Your task to perform on an android device: Open Google Chrome and click the shortcut for Amazon.com Image 0: 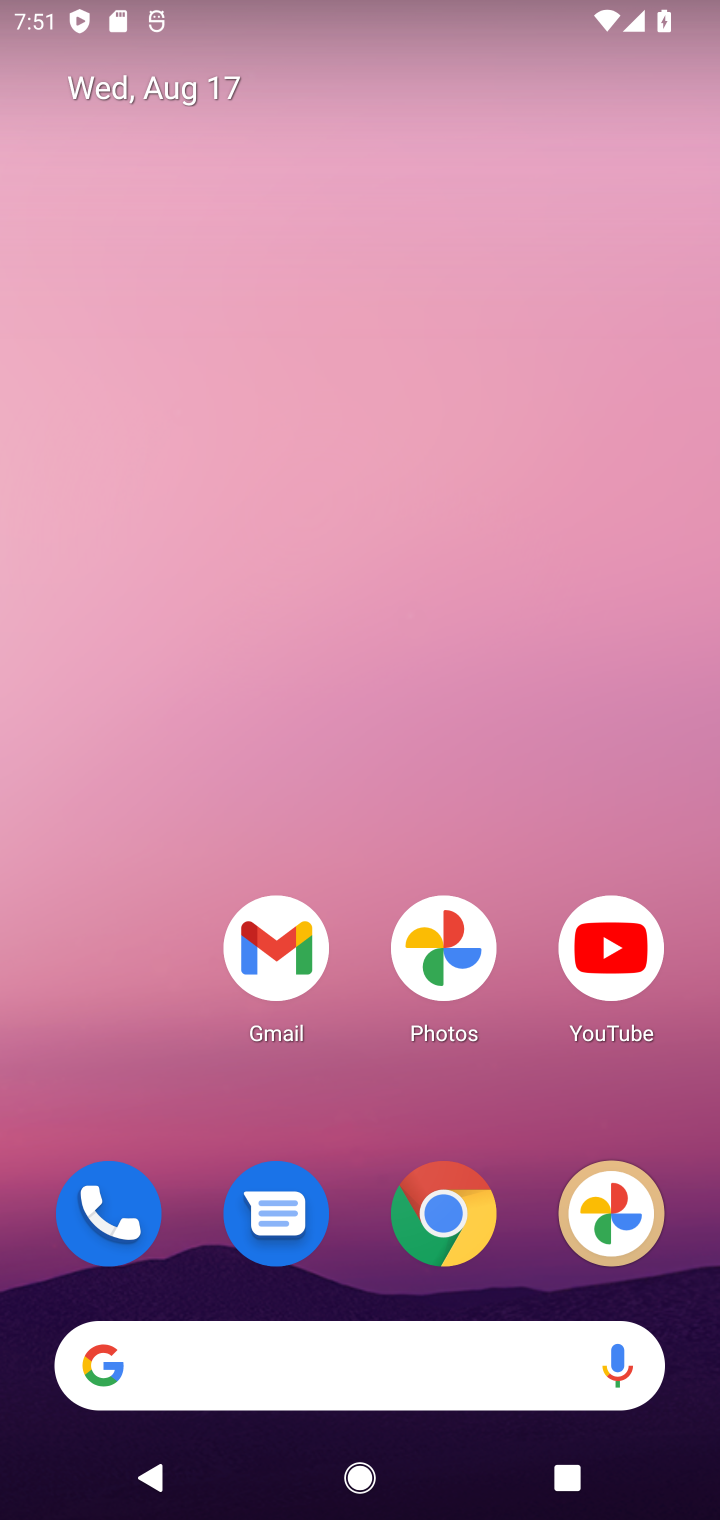
Step 0: click (462, 1213)
Your task to perform on an android device: Open Google Chrome and click the shortcut for Amazon.com Image 1: 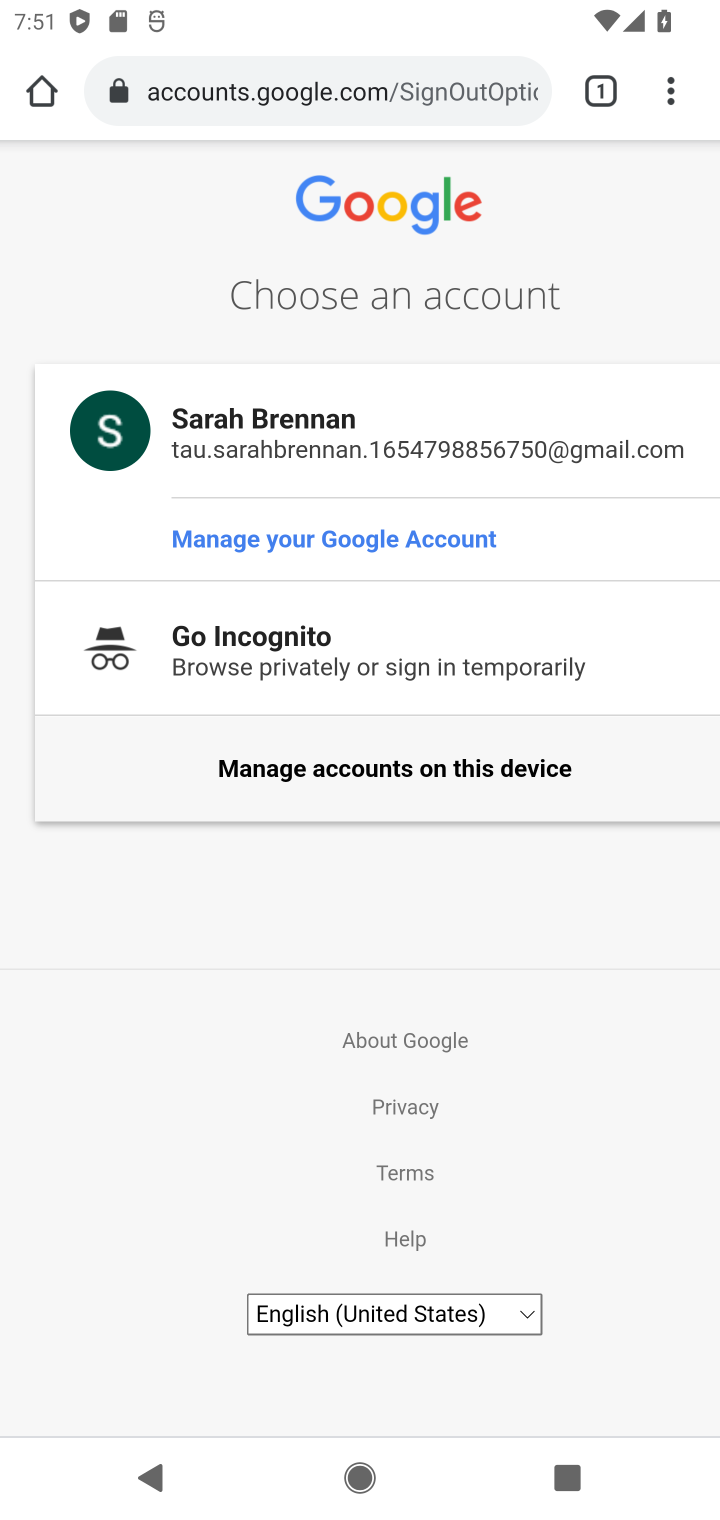
Step 1: click (595, 85)
Your task to perform on an android device: Open Google Chrome and click the shortcut for Amazon.com Image 2: 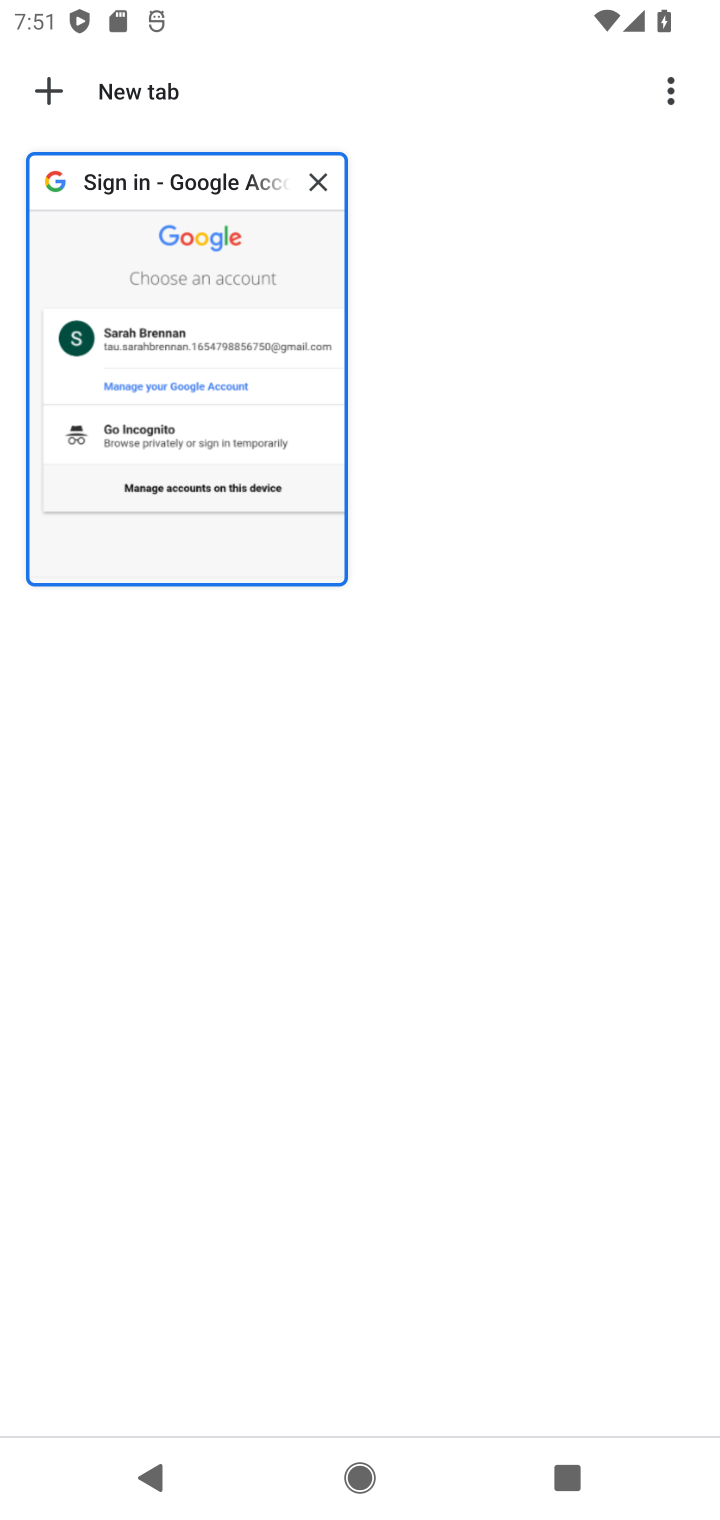
Step 2: click (100, 95)
Your task to perform on an android device: Open Google Chrome and click the shortcut for Amazon.com Image 3: 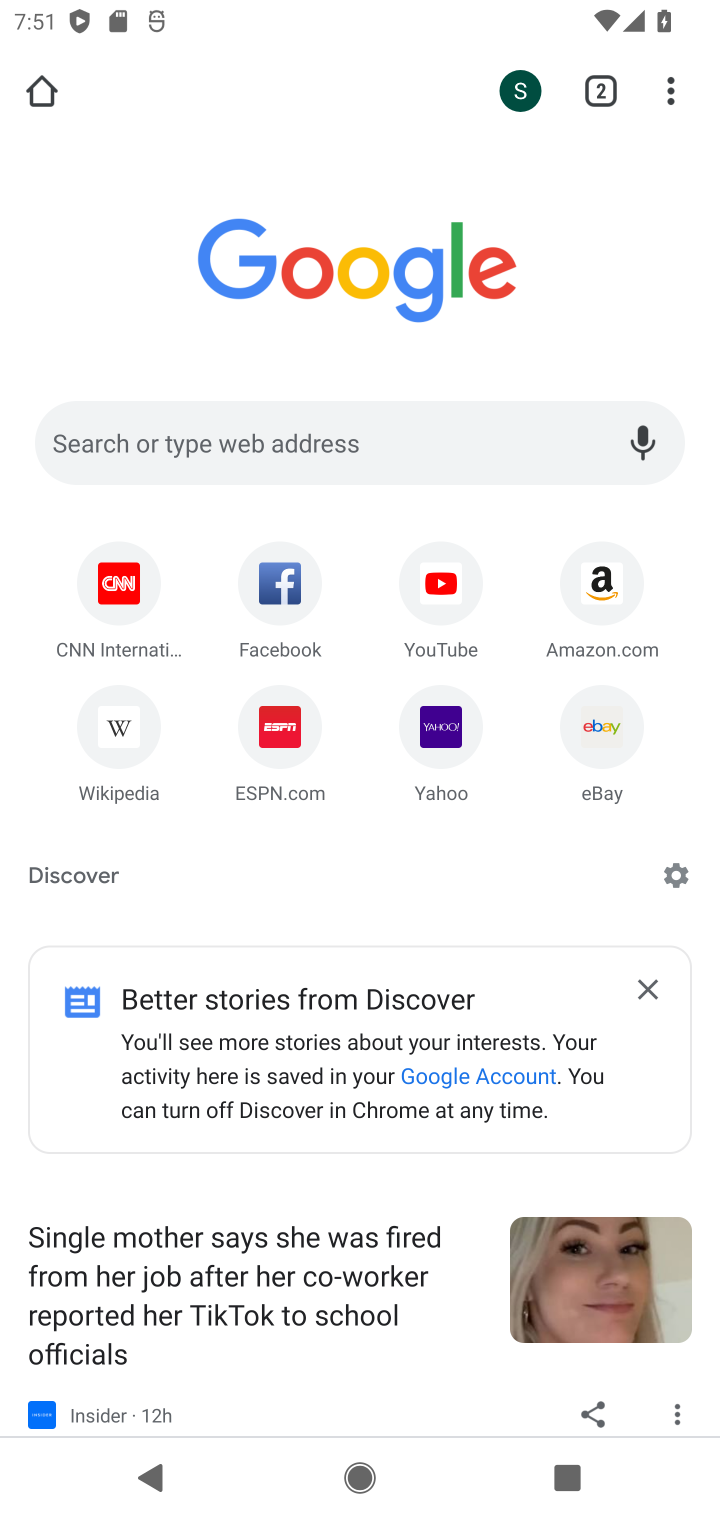
Step 3: click (591, 624)
Your task to perform on an android device: Open Google Chrome and click the shortcut for Amazon.com Image 4: 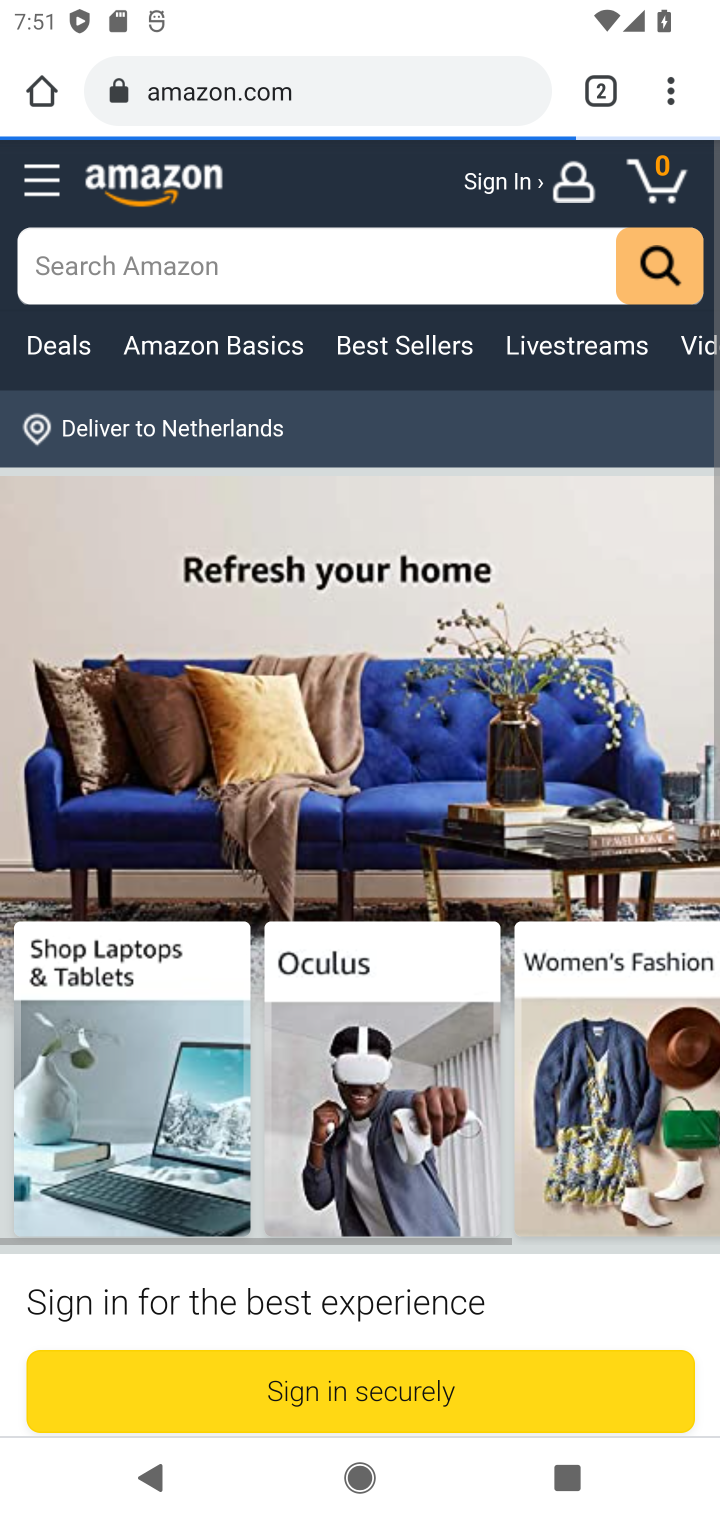
Step 4: task complete